Your task to perform on an android device: Open Chrome and go to settings Image 0: 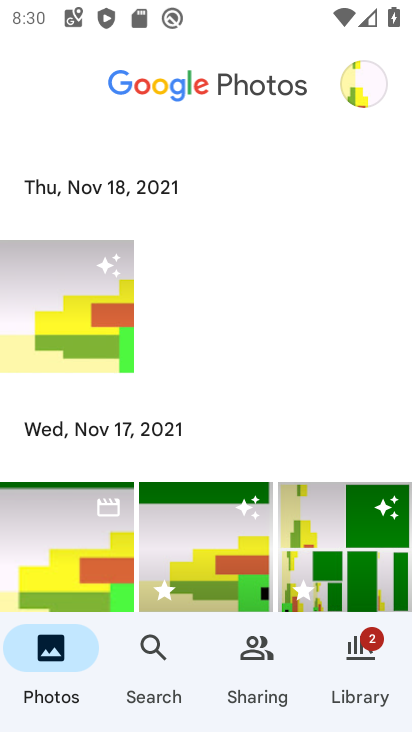
Step 0: press home button
Your task to perform on an android device: Open Chrome and go to settings Image 1: 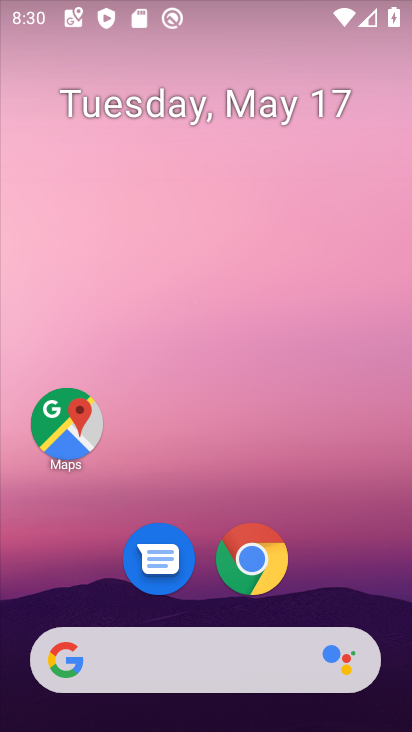
Step 1: click (279, 568)
Your task to perform on an android device: Open Chrome and go to settings Image 2: 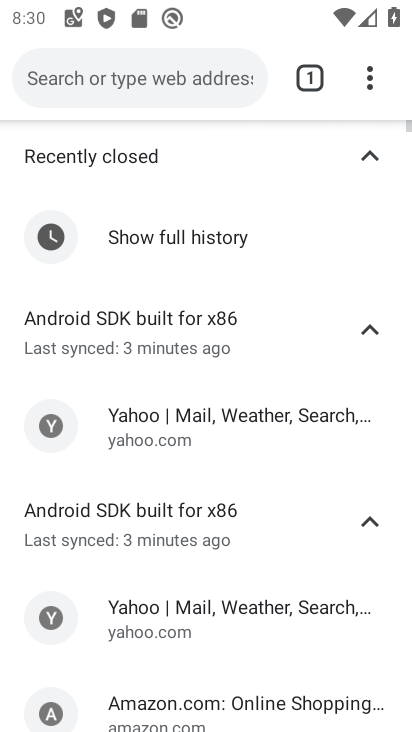
Step 2: click (379, 70)
Your task to perform on an android device: Open Chrome and go to settings Image 3: 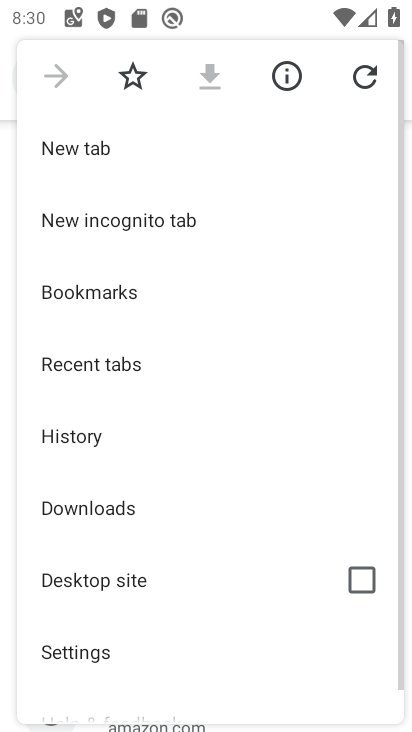
Step 3: click (109, 642)
Your task to perform on an android device: Open Chrome and go to settings Image 4: 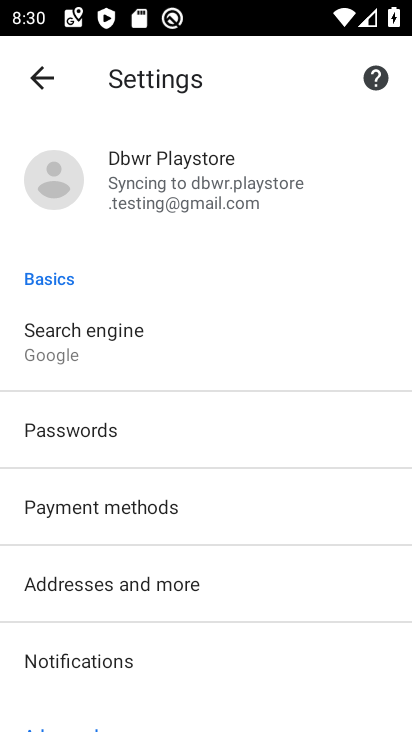
Step 4: task complete